Your task to perform on an android device: Open accessibility settings Image 0: 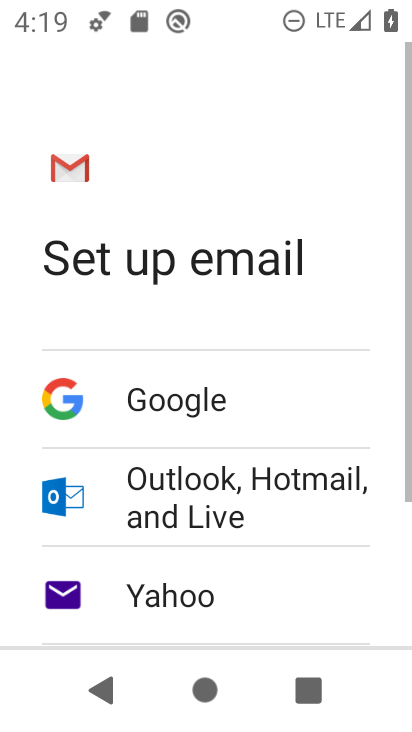
Step 0: press home button
Your task to perform on an android device: Open accessibility settings Image 1: 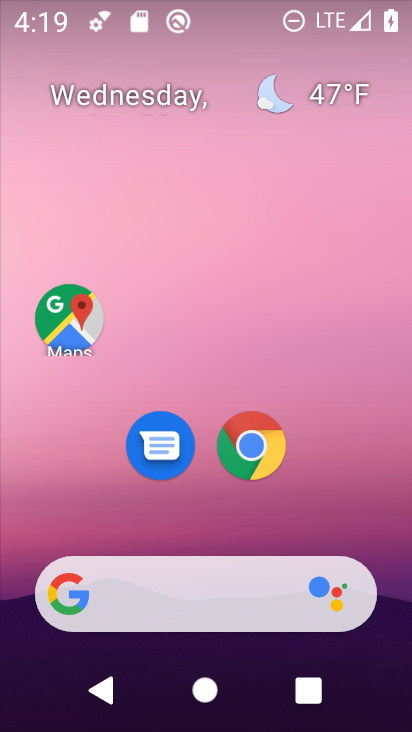
Step 1: drag from (217, 518) to (261, 16)
Your task to perform on an android device: Open accessibility settings Image 2: 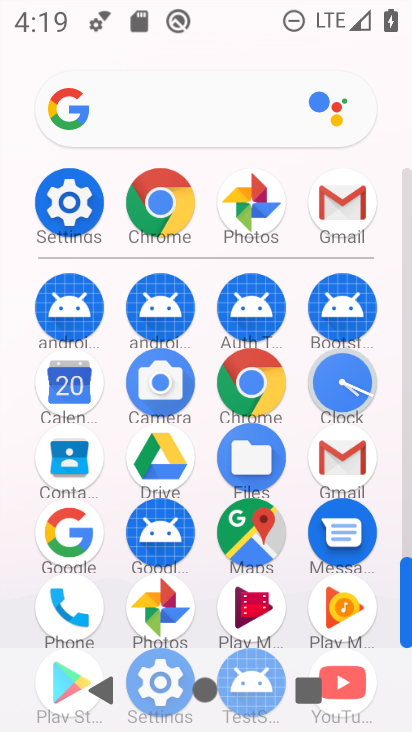
Step 2: click (70, 204)
Your task to perform on an android device: Open accessibility settings Image 3: 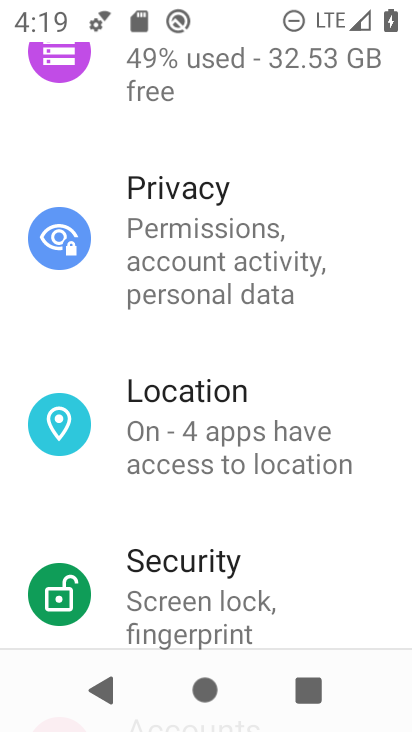
Step 3: drag from (194, 513) to (232, 351)
Your task to perform on an android device: Open accessibility settings Image 4: 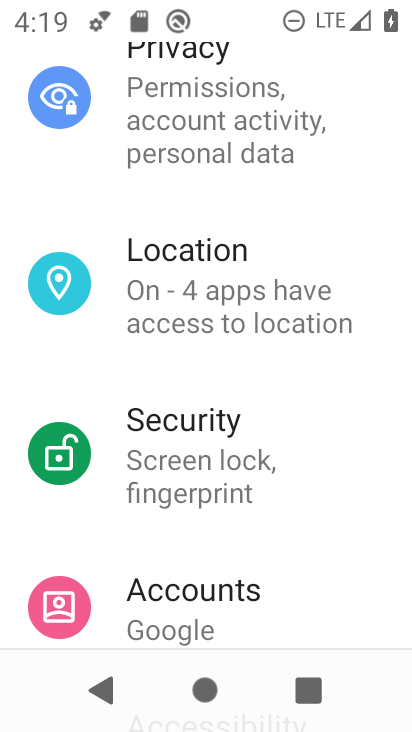
Step 4: drag from (205, 532) to (255, 347)
Your task to perform on an android device: Open accessibility settings Image 5: 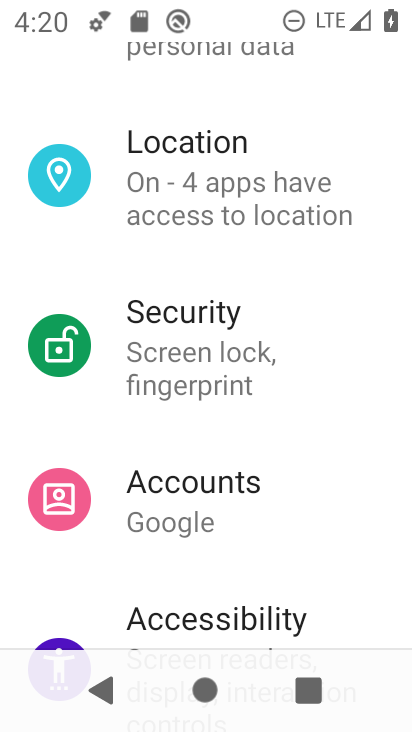
Step 5: drag from (207, 562) to (293, 359)
Your task to perform on an android device: Open accessibility settings Image 6: 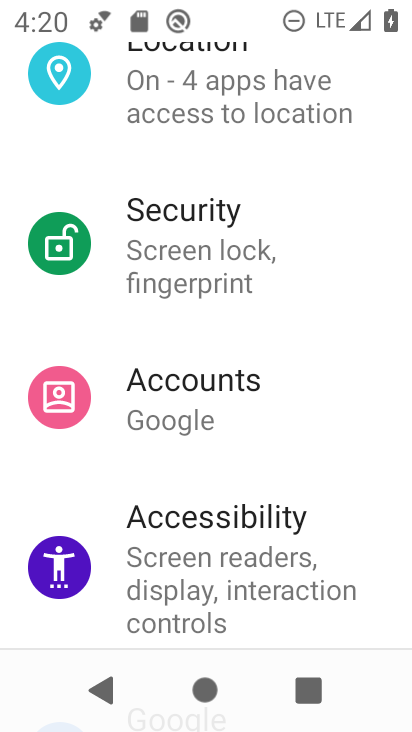
Step 6: drag from (195, 486) to (278, 320)
Your task to perform on an android device: Open accessibility settings Image 7: 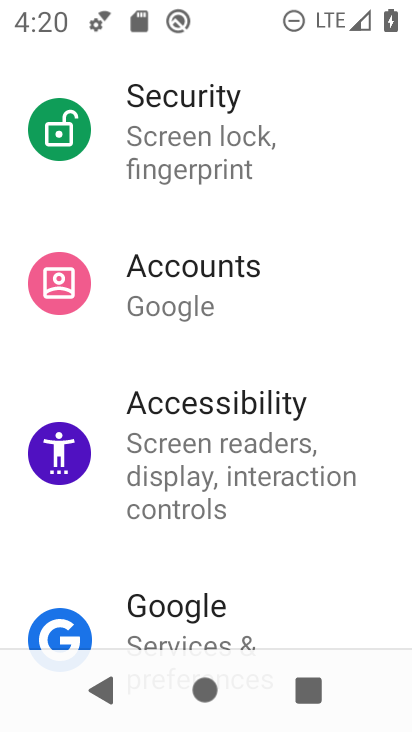
Step 7: click (243, 393)
Your task to perform on an android device: Open accessibility settings Image 8: 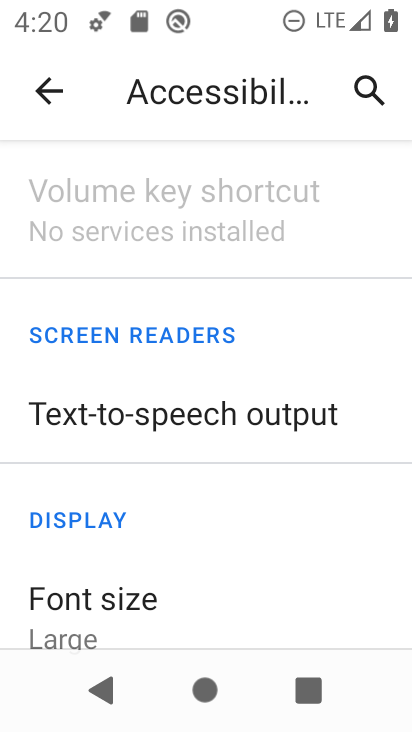
Step 8: task complete